Your task to perform on an android device: change the clock display to digital Image 0: 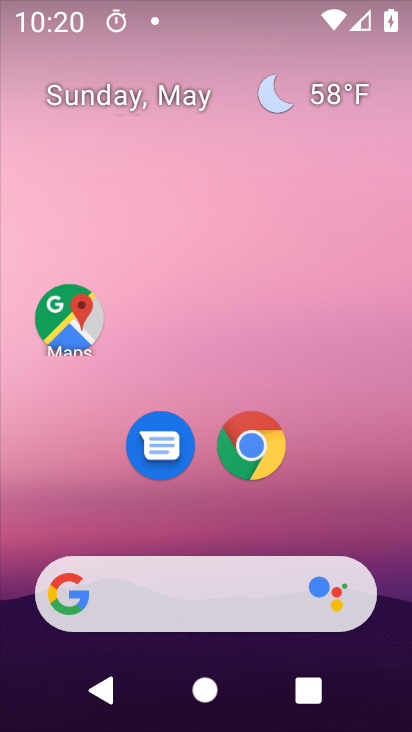
Step 0: drag from (332, 495) to (251, 13)
Your task to perform on an android device: change the clock display to digital Image 1: 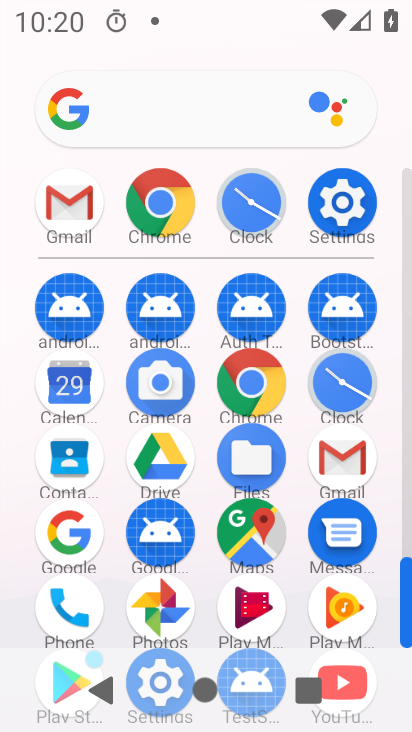
Step 1: drag from (7, 528) to (24, 209)
Your task to perform on an android device: change the clock display to digital Image 2: 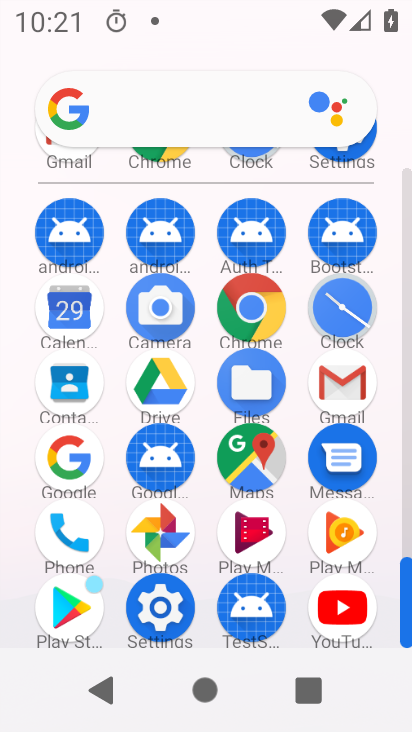
Step 2: click (341, 305)
Your task to perform on an android device: change the clock display to digital Image 3: 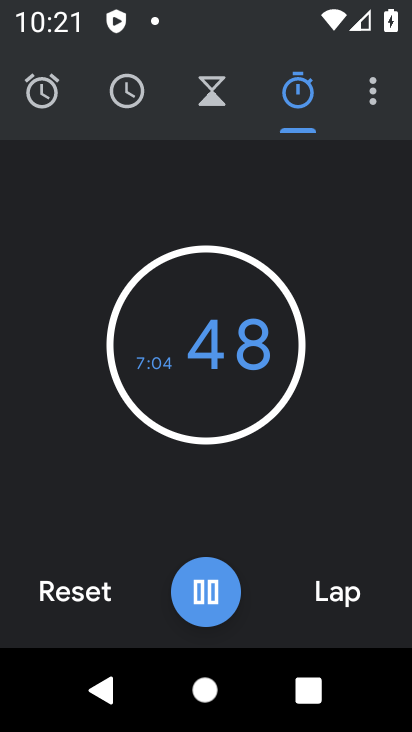
Step 3: drag from (370, 102) to (260, 138)
Your task to perform on an android device: change the clock display to digital Image 4: 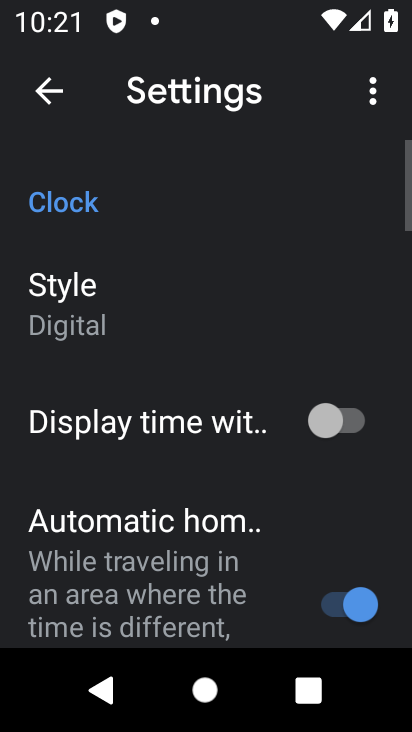
Step 4: click (107, 288)
Your task to perform on an android device: change the clock display to digital Image 5: 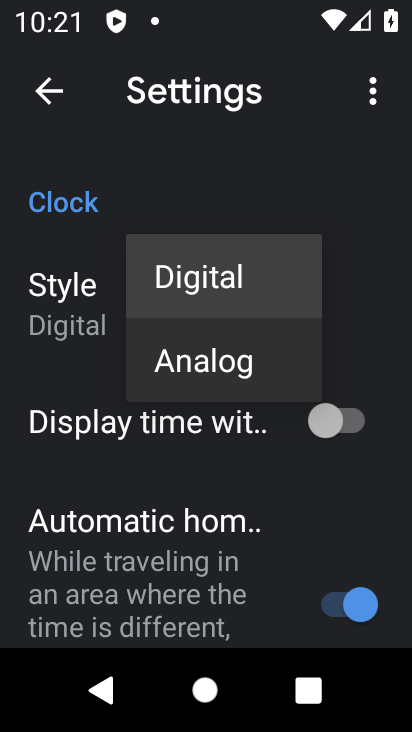
Step 5: click (202, 346)
Your task to perform on an android device: change the clock display to digital Image 6: 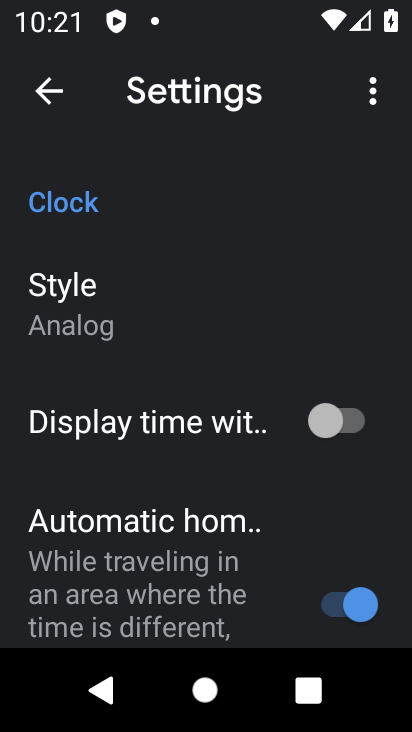
Step 6: task complete